Your task to perform on an android device: Open calendar and show me the third week of next month Image 0: 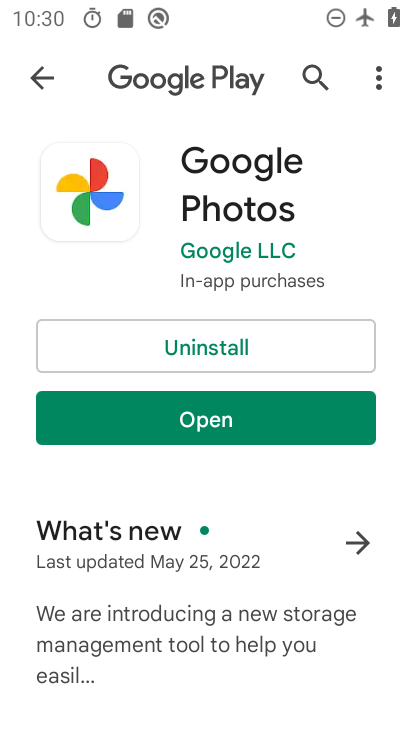
Step 0: press home button
Your task to perform on an android device: Open calendar and show me the third week of next month Image 1: 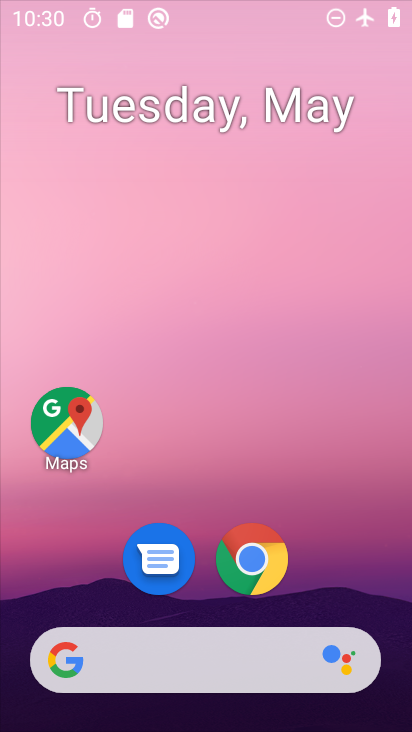
Step 1: drag from (380, 641) to (350, 119)
Your task to perform on an android device: Open calendar and show me the third week of next month Image 2: 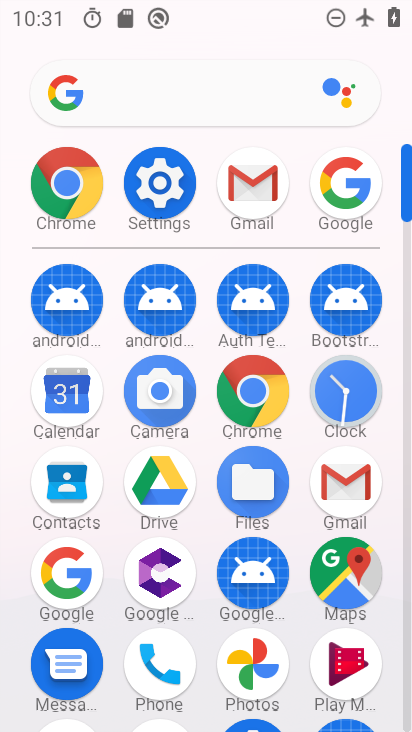
Step 2: click (57, 426)
Your task to perform on an android device: Open calendar and show me the third week of next month Image 3: 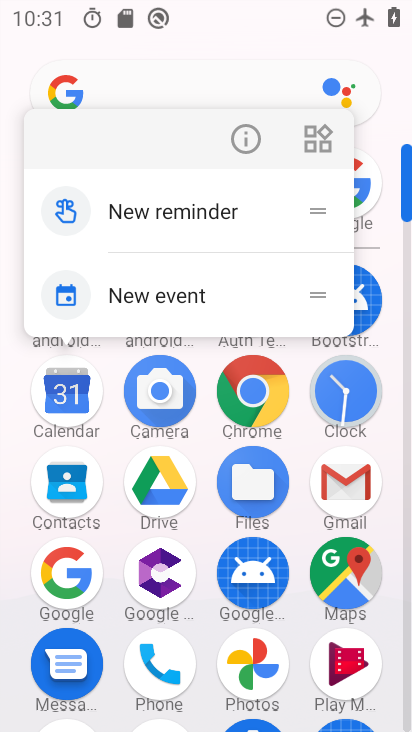
Step 3: click (75, 409)
Your task to perform on an android device: Open calendar and show me the third week of next month Image 4: 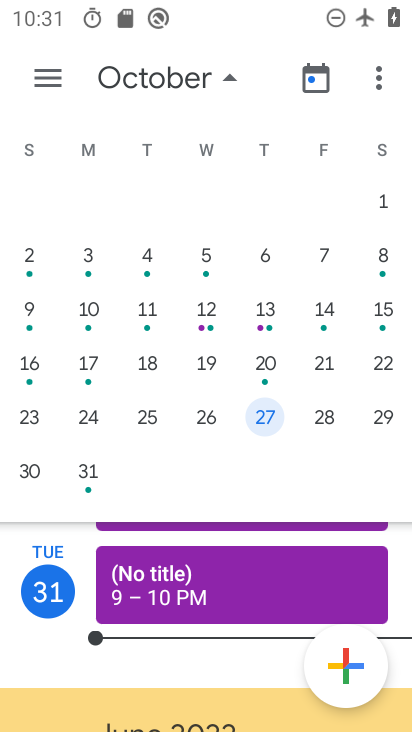
Step 4: drag from (371, 336) to (37, 318)
Your task to perform on an android device: Open calendar and show me the third week of next month Image 5: 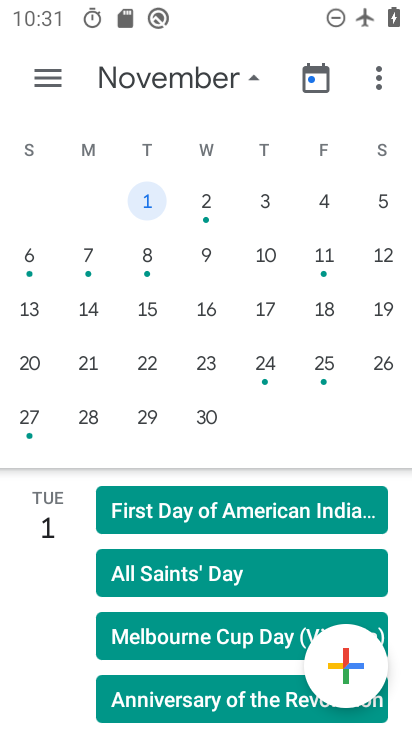
Step 5: click (272, 370)
Your task to perform on an android device: Open calendar and show me the third week of next month Image 6: 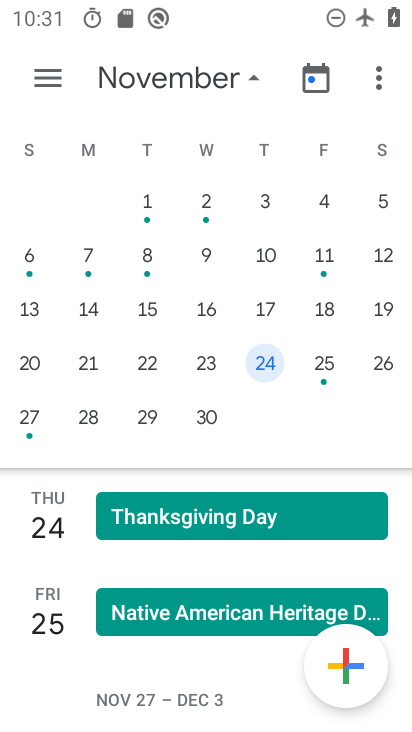
Step 6: task complete